Your task to perform on an android device: turn notification dots on Image 0: 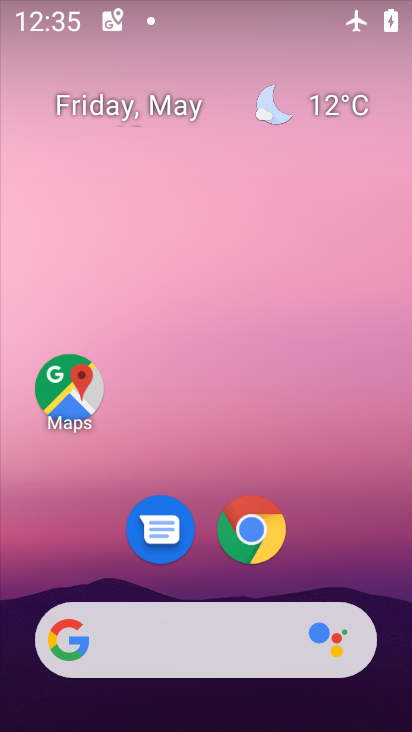
Step 0: drag from (308, 562) to (300, 147)
Your task to perform on an android device: turn notification dots on Image 1: 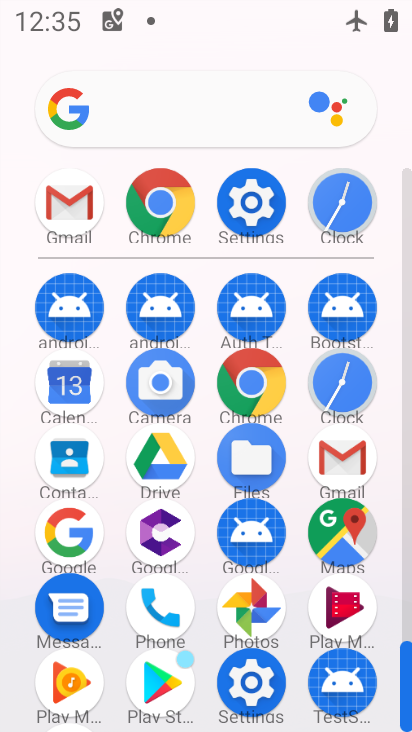
Step 1: click (158, 190)
Your task to perform on an android device: turn notification dots on Image 2: 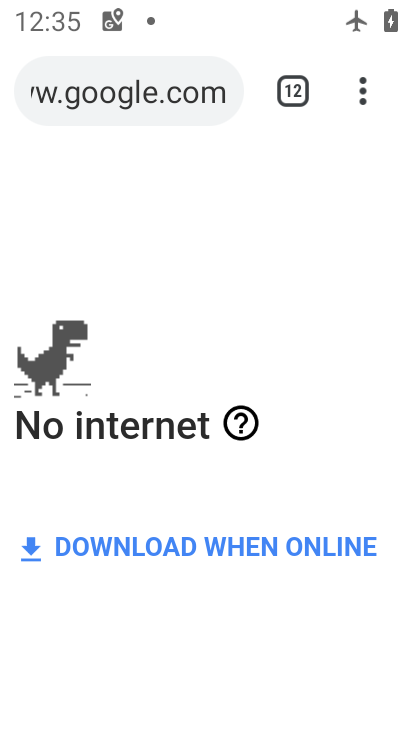
Step 2: click (345, 89)
Your task to perform on an android device: turn notification dots on Image 3: 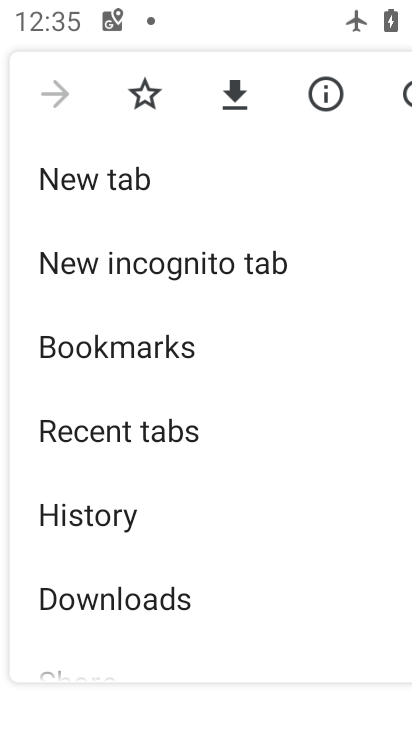
Step 3: click (173, 174)
Your task to perform on an android device: turn notification dots on Image 4: 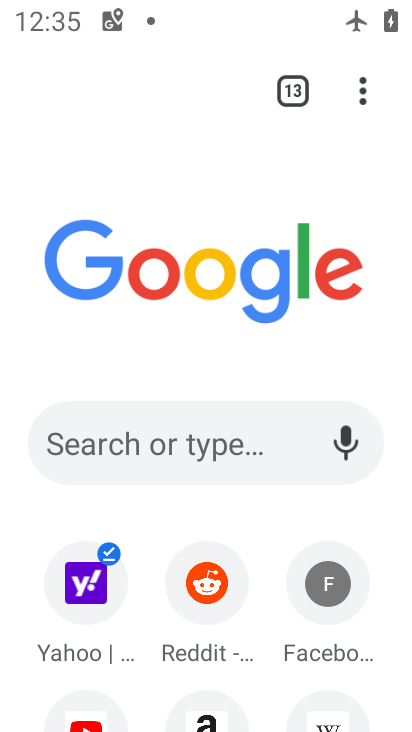
Step 4: click (168, 428)
Your task to perform on an android device: turn notification dots on Image 5: 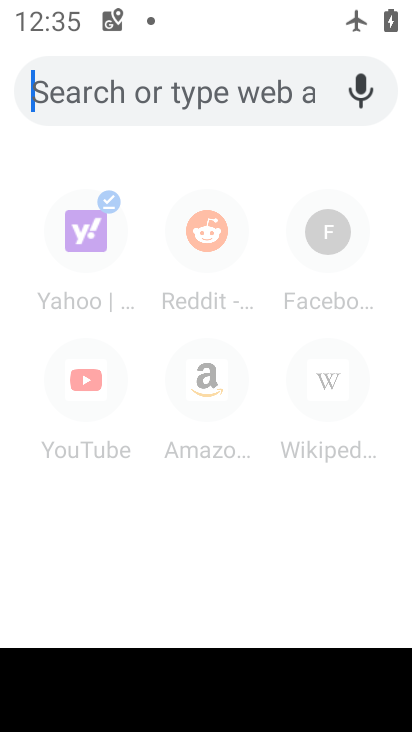
Step 5: type "notification dots on"
Your task to perform on an android device: turn notification dots on Image 6: 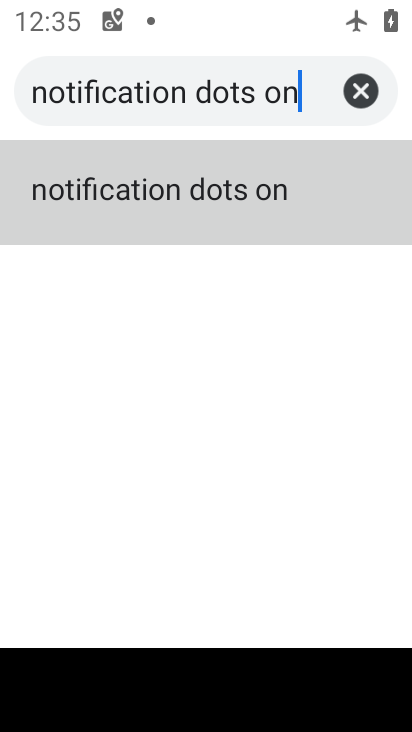
Step 6: click (163, 167)
Your task to perform on an android device: turn notification dots on Image 7: 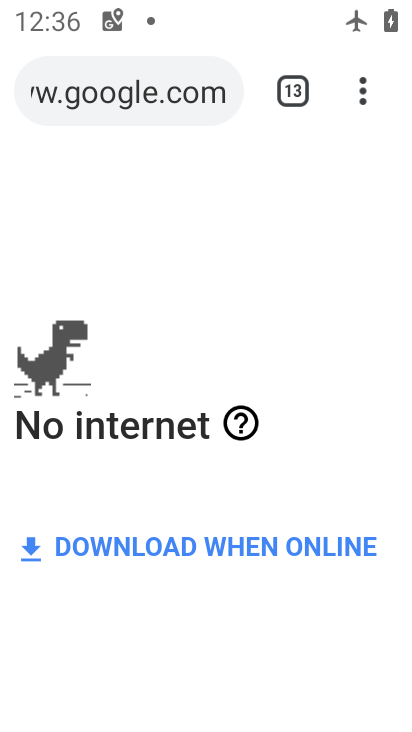
Step 7: task complete